Your task to perform on an android device: What's on my calendar today? Image 0: 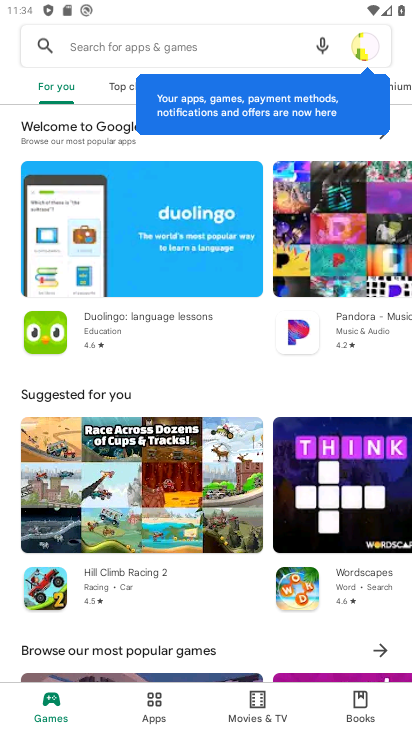
Step 0: press home button
Your task to perform on an android device: What's on my calendar today? Image 1: 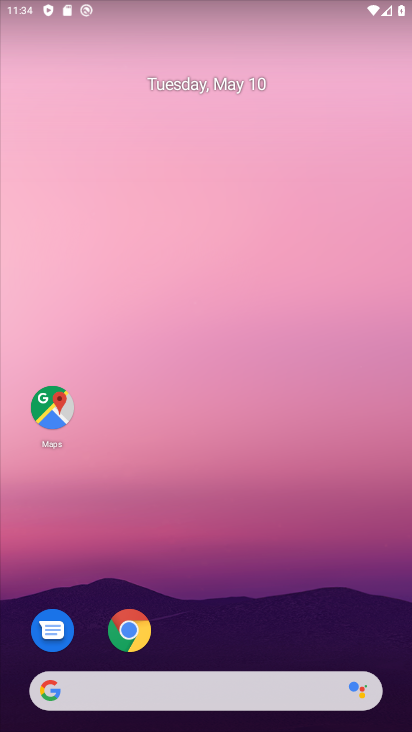
Step 1: drag from (241, 582) to (239, 169)
Your task to perform on an android device: What's on my calendar today? Image 2: 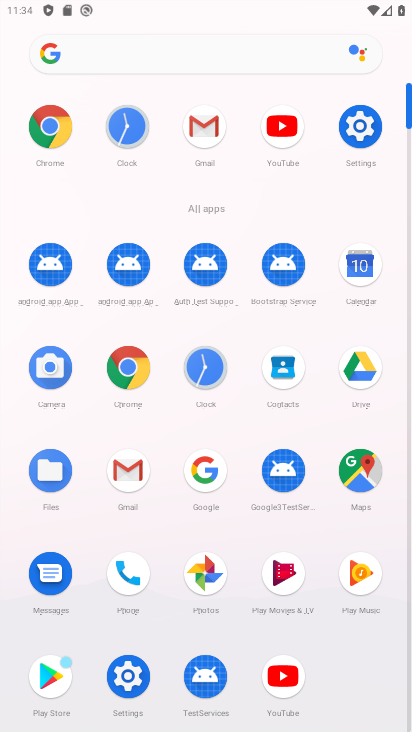
Step 2: click (355, 262)
Your task to perform on an android device: What's on my calendar today? Image 3: 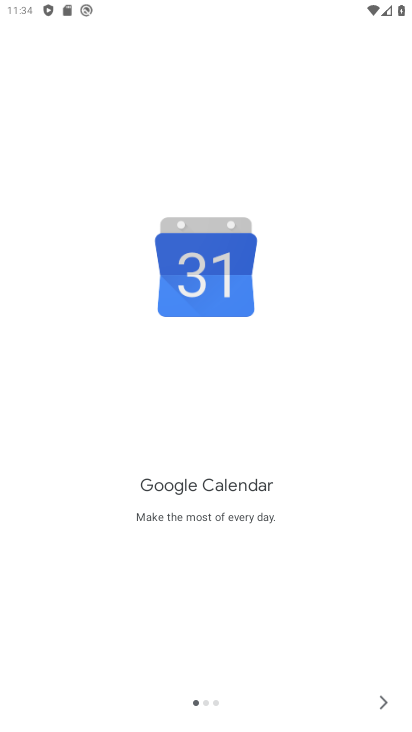
Step 3: click (386, 700)
Your task to perform on an android device: What's on my calendar today? Image 4: 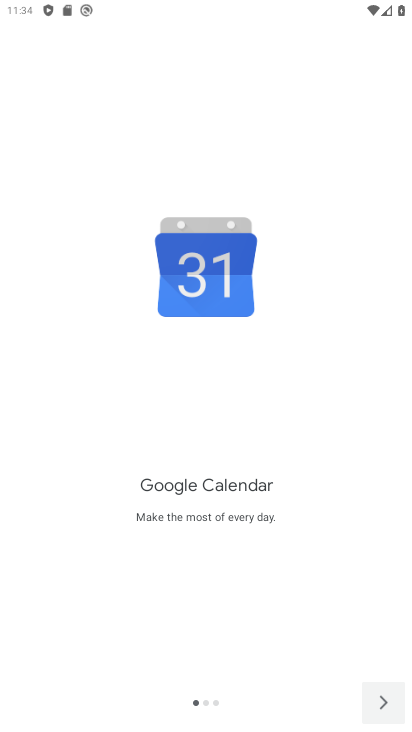
Step 4: click (386, 700)
Your task to perform on an android device: What's on my calendar today? Image 5: 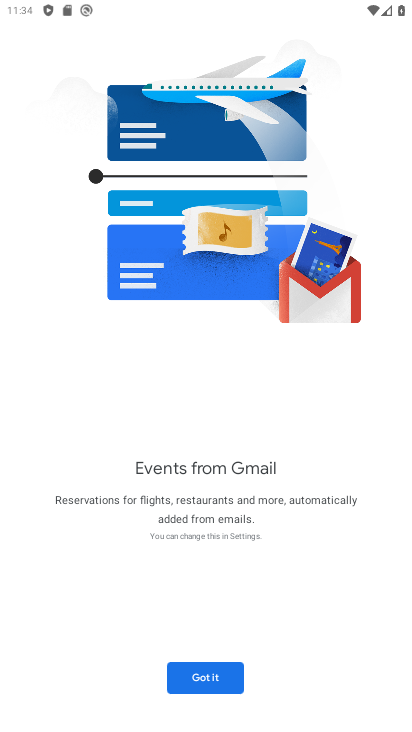
Step 5: click (224, 666)
Your task to perform on an android device: What's on my calendar today? Image 6: 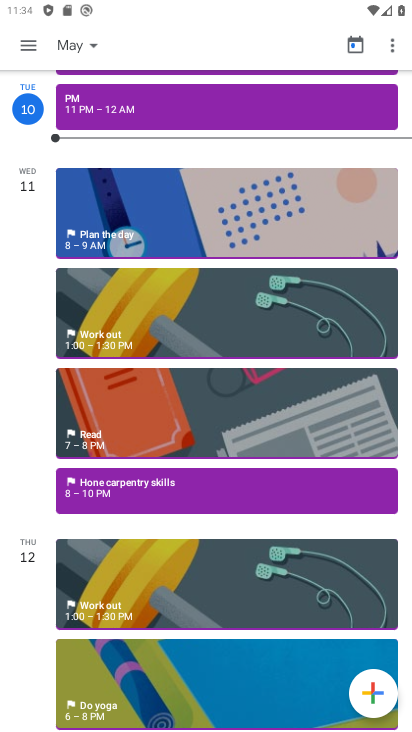
Step 6: task complete